Your task to perform on an android device: Open maps Image 0: 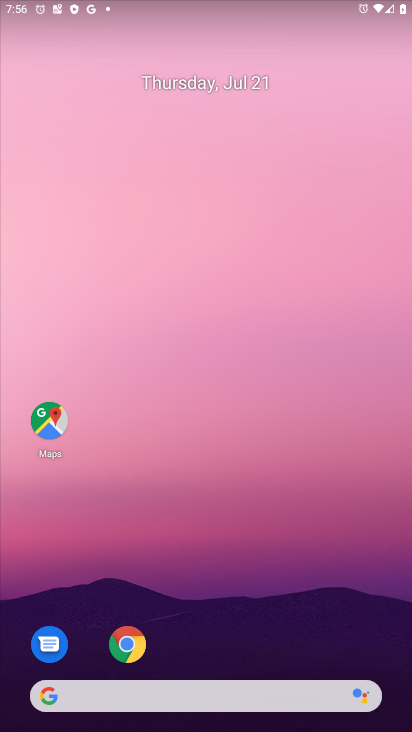
Step 0: click (49, 406)
Your task to perform on an android device: Open maps Image 1: 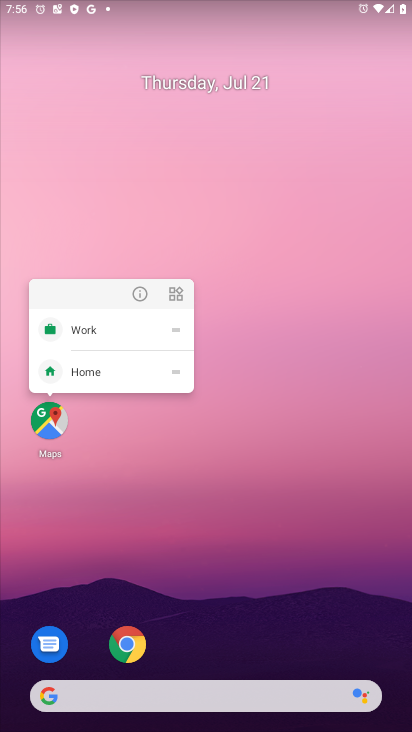
Step 1: click (52, 431)
Your task to perform on an android device: Open maps Image 2: 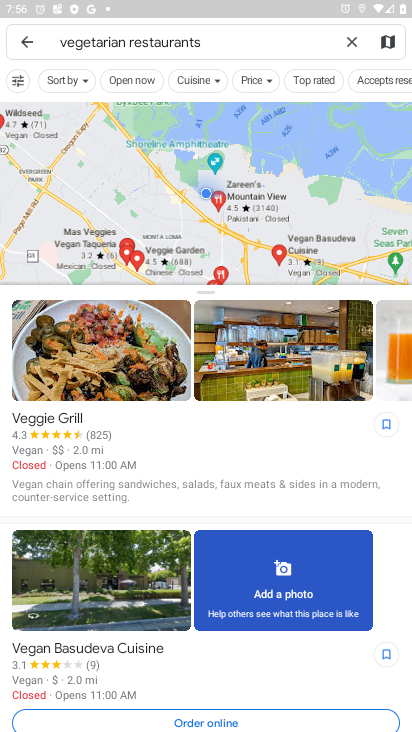
Step 2: task complete